Your task to perform on an android device: turn on sleep mode Image 0: 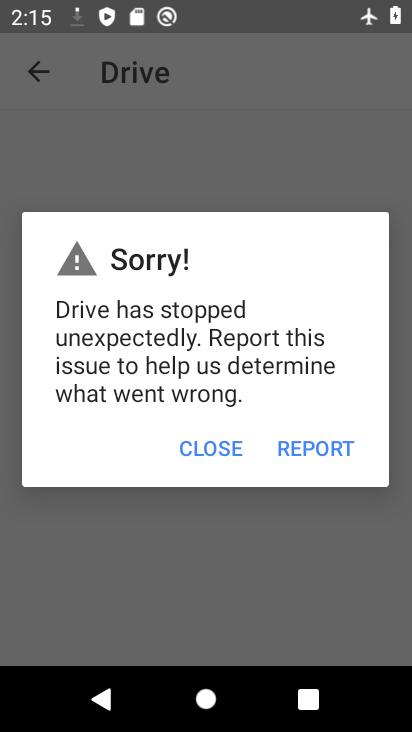
Step 0: press home button
Your task to perform on an android device: turn on sleep mode Image 1: 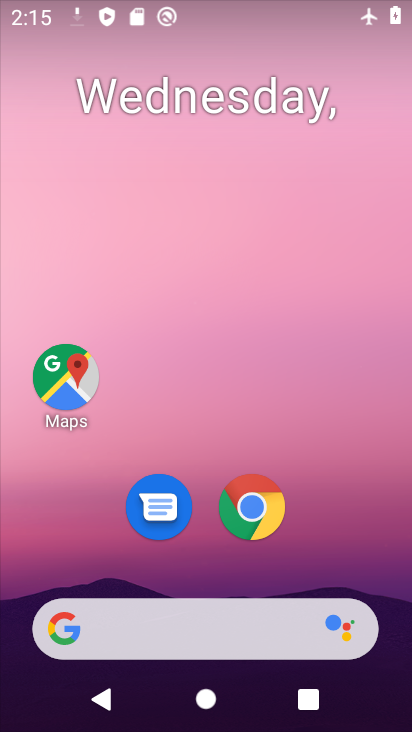
Step 1: drag from (316, 535) to (311, 120)
Your task to perform on an android device: turn on sleep mode Image 2: 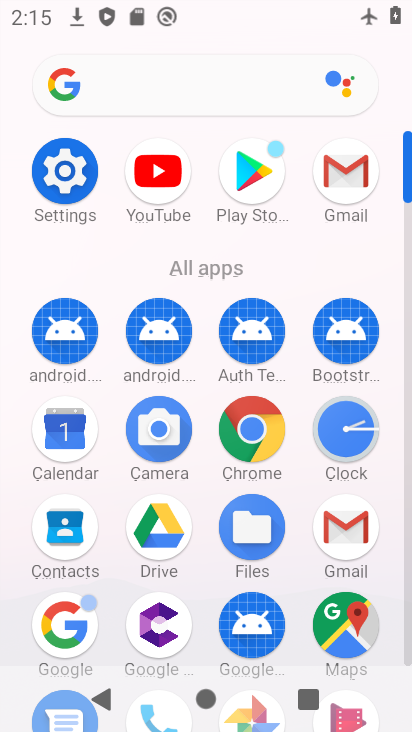
Step 2: click (94, 201)
Your task to perform on an android device: turn on sleep mode Image 3: 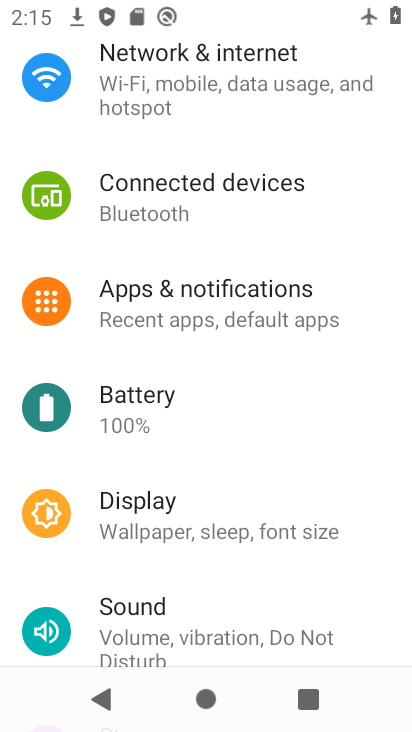
Step 3: click (146, 496)
Your task to perform on an android device: turn on sleep mode Image 4: 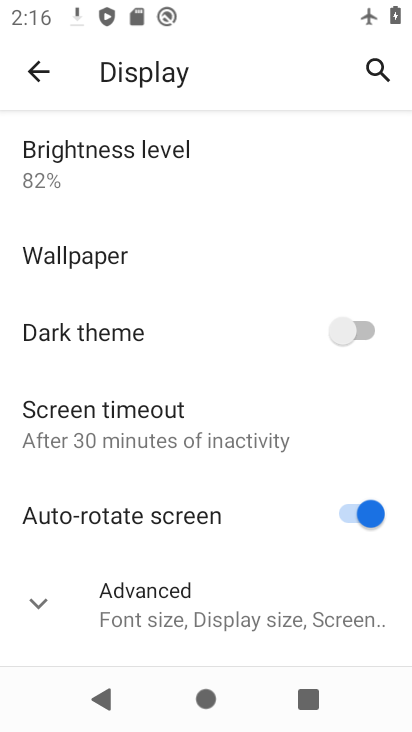
Step 4: drag from (262, 556) to (246, 287)
Your task to perform on an android device: turn on sleep mode Image 5: 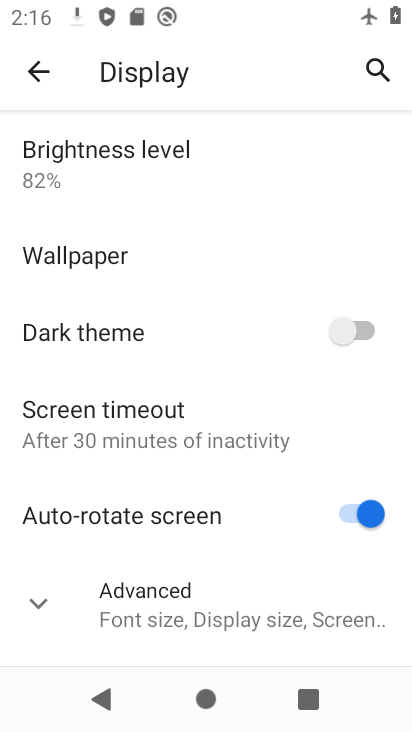
Step 5: drag from (147, 223) to (176, 457)
Your task to perform on an android device: turn on sleep mode Image 6: 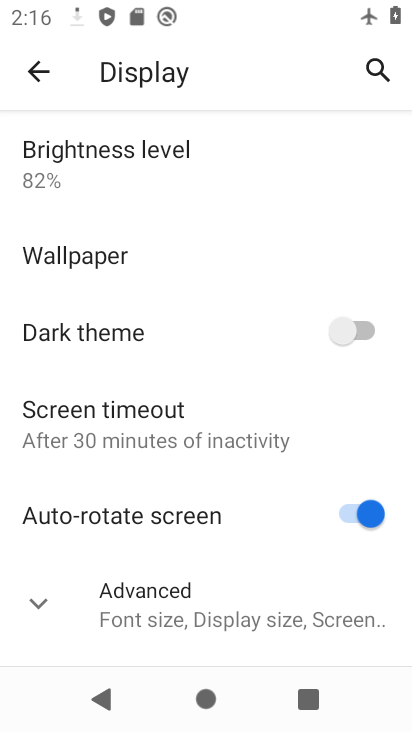
Step 6: click (213, 583)
Your task to perform on an android device: turn on sleep mode Image 7: 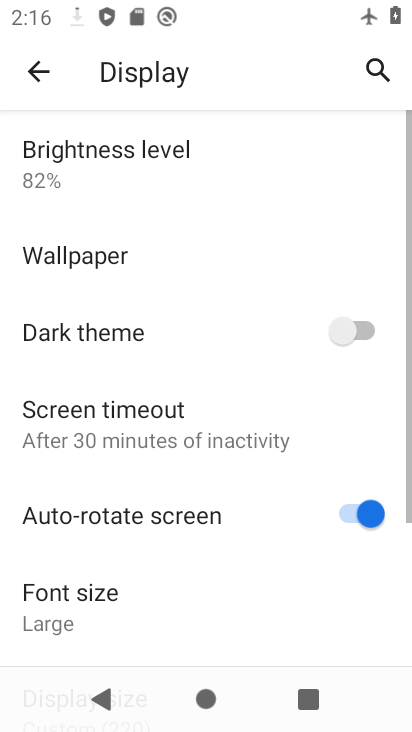
Step 7: task complete